Your task to perform on an android device: Go to settings Image 0: 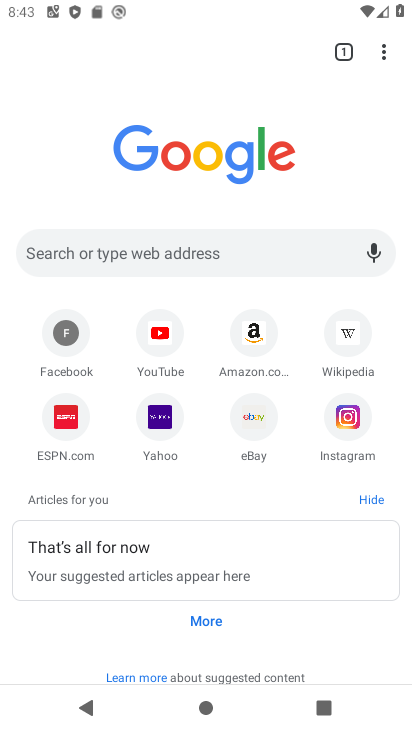
Step 0: press home button
Your task to perform on an android device: Go to settings Image 1: 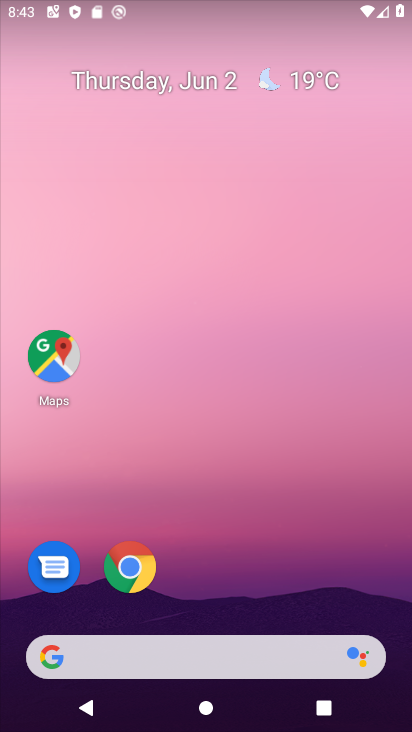
Step 1: drag from (194, 576) to (287, 158)
Your task to perform on an android device: Go to settings Image 2: 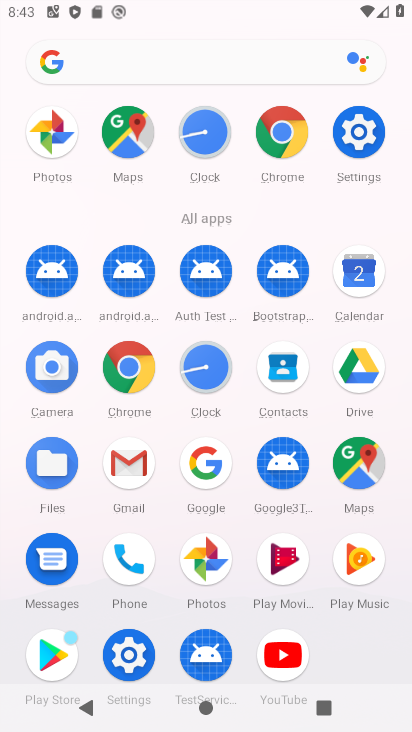
Step 2: click (117, 659)
Your task to perform on an android device: Go to settings Image 3: 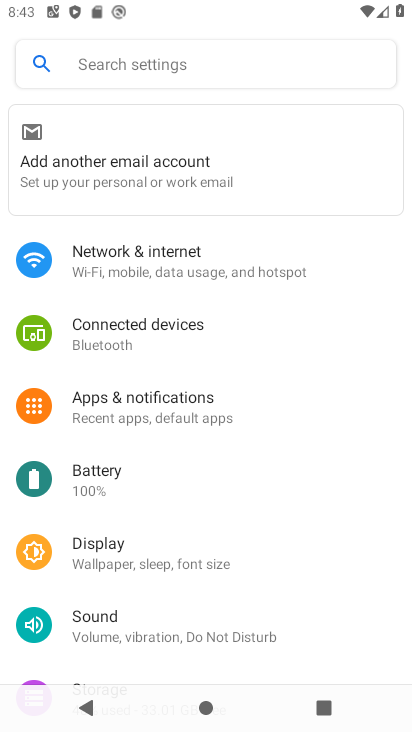
Step 3: task complete